Your task to perform on an android device: delete the emails in spam in the gmail app Image 0: 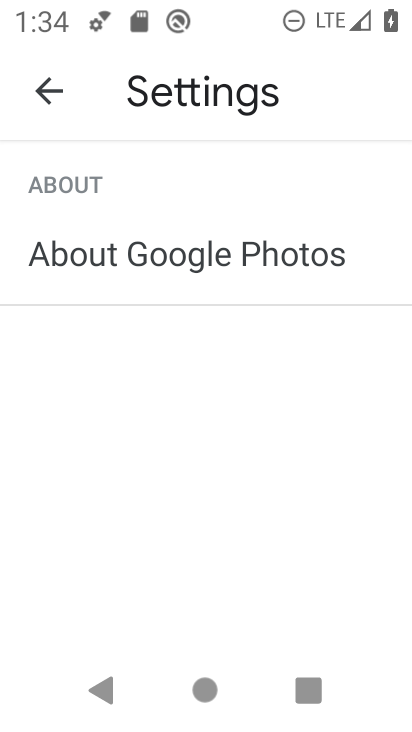
Step 0: press home button
Your task to perform on an android device: delete the emails in spam in the gmail app Image 1: 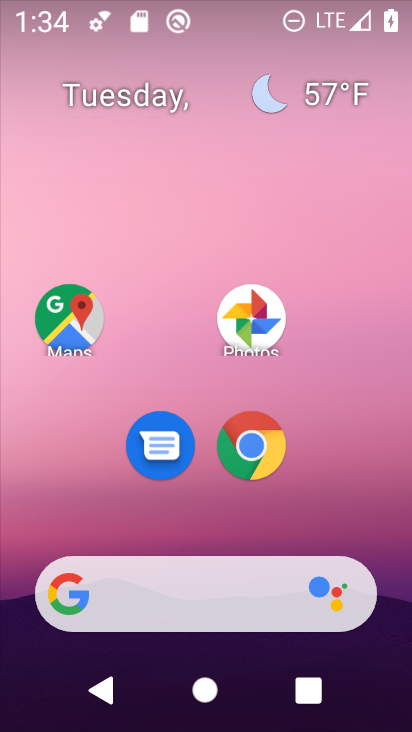
Step 1: drag from (375, 546) to (368, 187)
Your task to perform on an android device: delete the emails in spam in the gmail app Image 2: 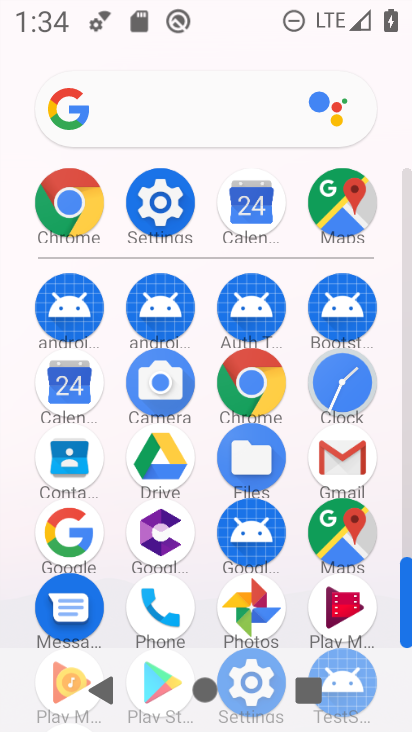
Step 2: click (352, 467)
Your task to perform on an android device: delete the emails in spam in the gmail app Image 3: 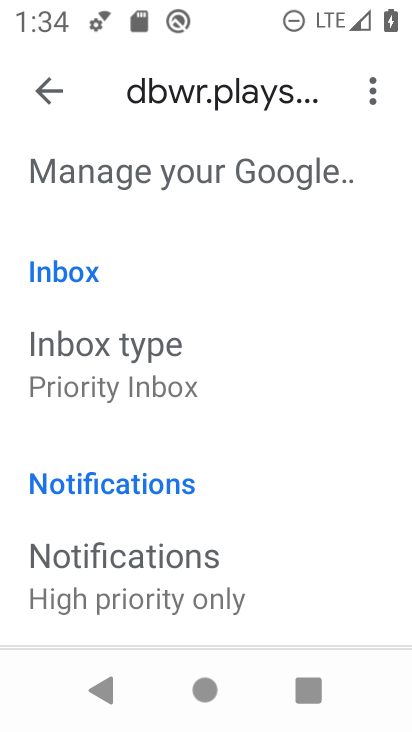
Step 3: click (55, 101)
Your task to perform on an android device: delete the emails in spam in the gmail app Image 4: 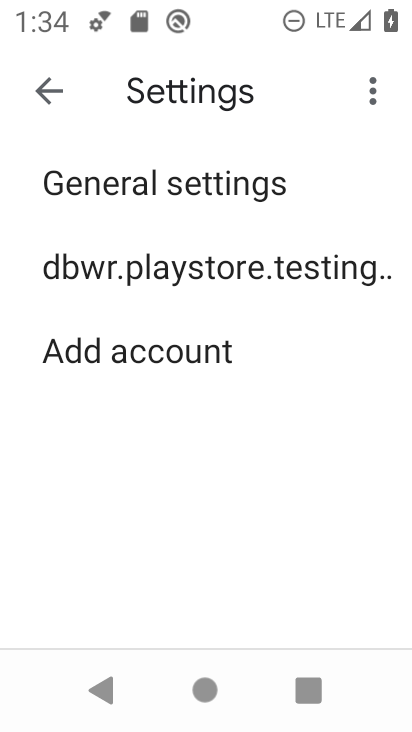
Step 4: click (55, 101)
Your task to perform on an android device: delete the emails in spam in the gmail app Image 5: 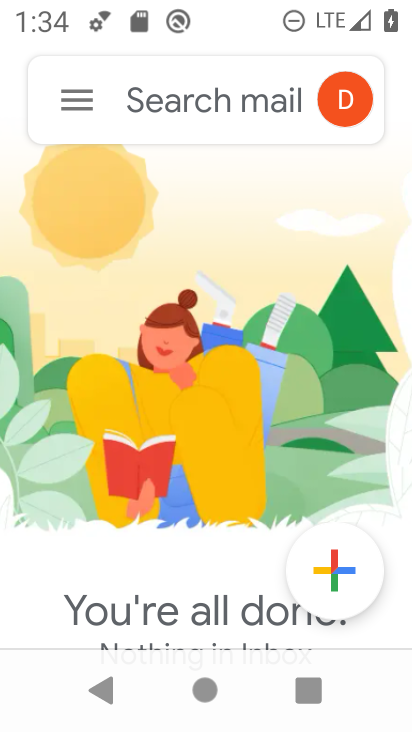
Step 5: drag from (188, 493) to (191, 289)
Your task to perform on an android device: delete the emails in spam in the gmail app Image 6: 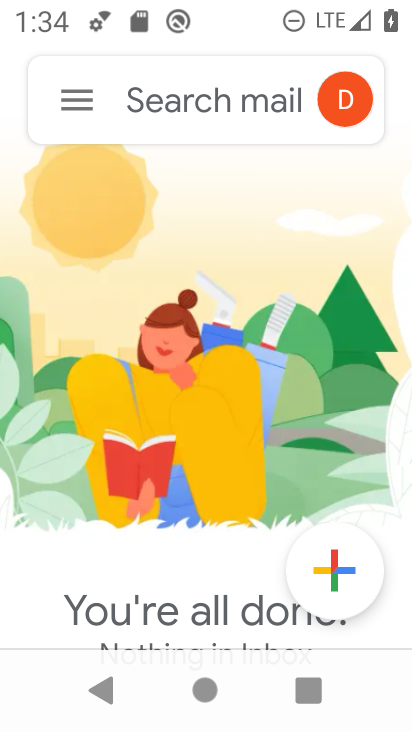
Step 6: click (88, 90)
Your task to perform on an android device: delete the emails in spam in the gmail app Image 7: 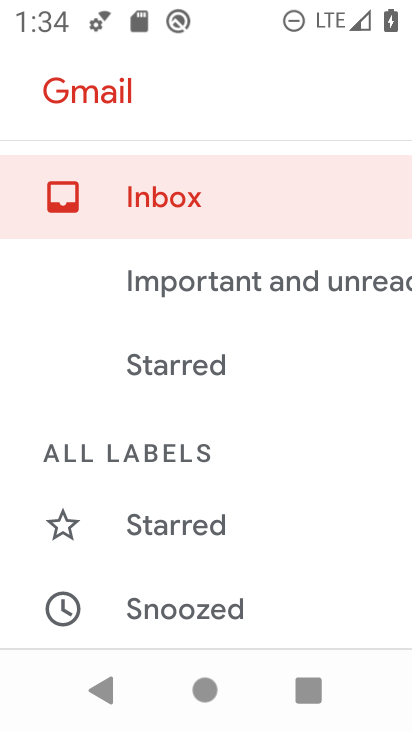
Step 7: drag from (286, 528) to (288, 365)
Your task to perform on an android device: delete the emails in spam in the gmail app Image 8: 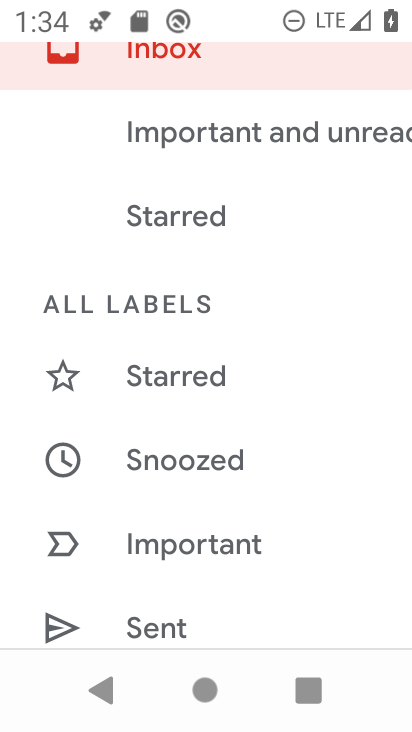
Step 8: drag from (305, 612) to (310, 348)
Your task to perform on an android device: delete the emails in spam in the gmail app Image 9: 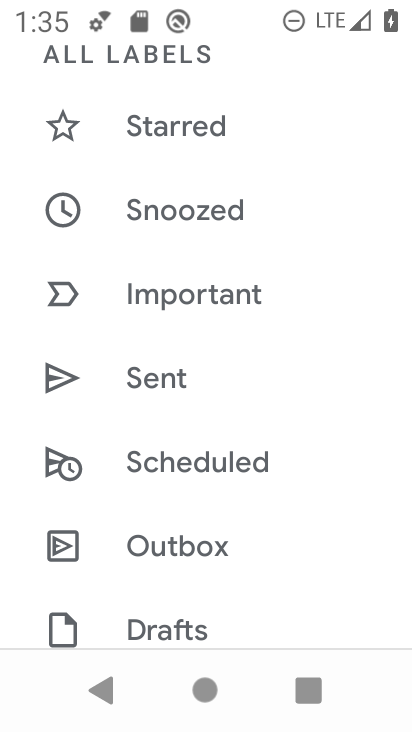
Step 9: drag from (300, 602) to (318, 394)
Your task to perform on an android device: delete the emails in spam in the gmail app Image 10: 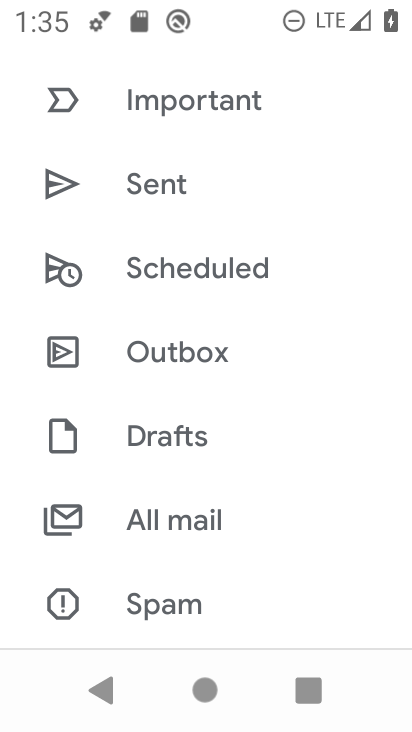
Step 10: drag from (312, 593) to (326, 252)
Your task to perform on an android device: delete the emails in spam in the gmail app Image 11: 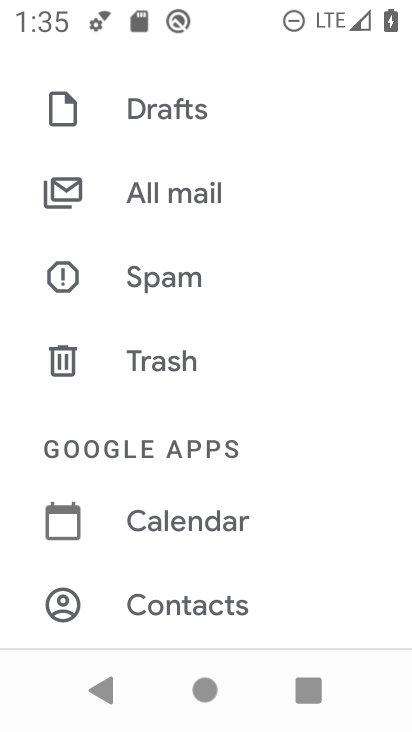
Step 11: drag from (309, 161) to (291, 325)
Your task to perform on an android device: delete the emails in spam in the gmail app Image 12: 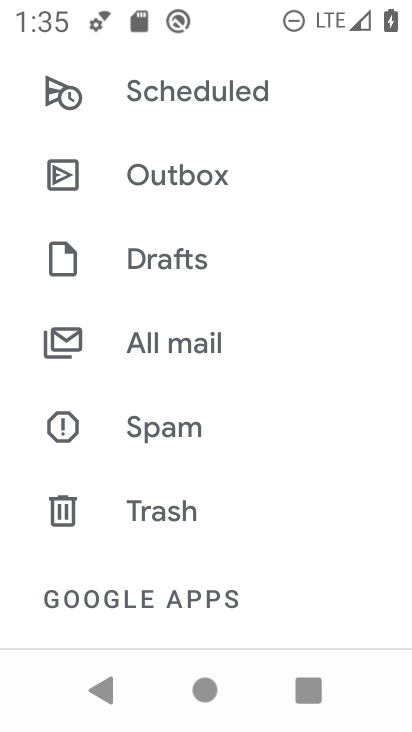
Step 12: drag from (294, 104) to (292, 298)
Your task to perform on an android device: delete the emails in spam in the gmail app Image 13: 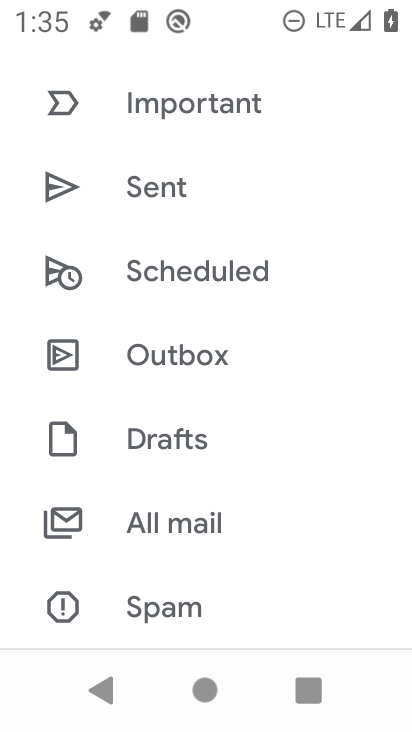
Step 13: drag from (306, 83) to (309, 294)
Your task to perform on an android device: delete the emails in spam in the gmail app Image 14: 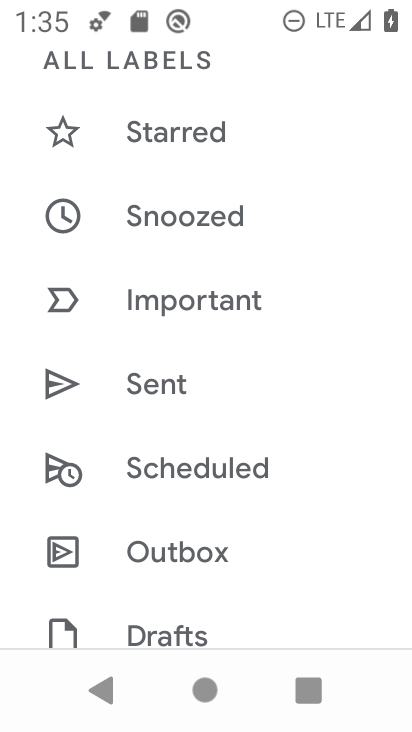
Step 14: drag from (340, 184) to (339, 356)
Your task to perform on an android device: delete the emails in spam in the gmail app Image 15: 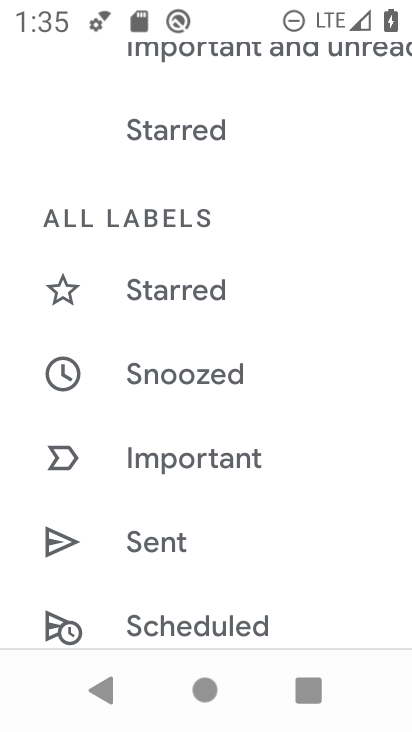
Step 15: drag from (314, 162) to (307, 328)
Your task to perform on an android device: delete the emails in spam in the gmail app Image 16: 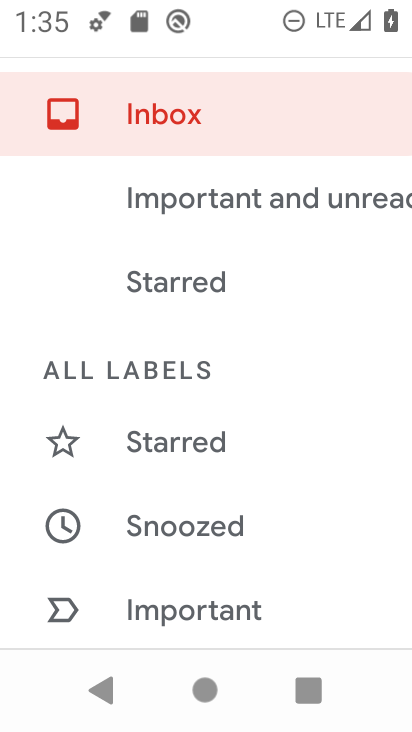
Step 16: click (218, 114)
Your task to perform on an android device: delete the emails in spam in the gmail app Image 17: 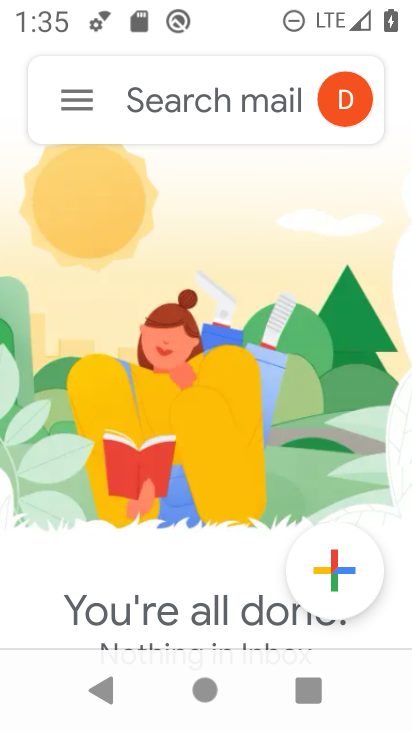
Step 17: task complete